Your task to perform on an android device: Open CNN.com Image 0: 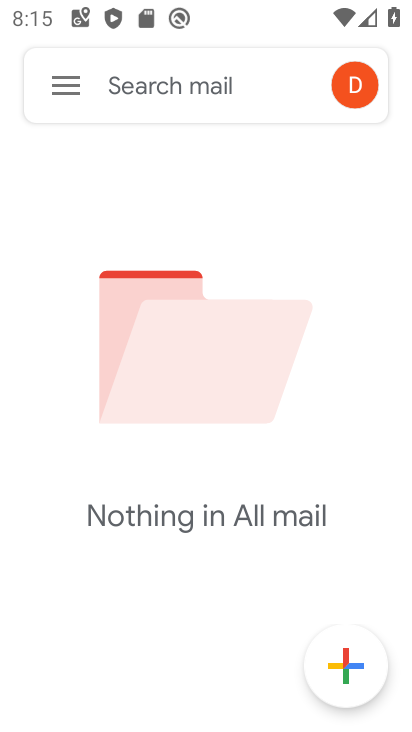
Step 0: press home button
Your task to perform on an android device: Open CNN.com Image 1: 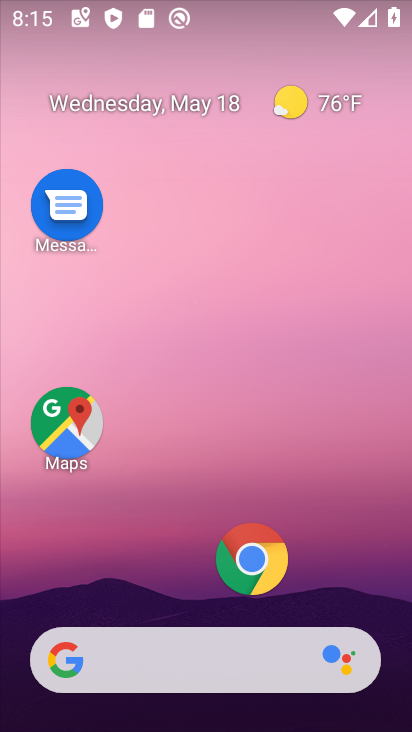
Step 1: click (243, 565)
Your task to perform on an android device: Open CNN.com Image 2: 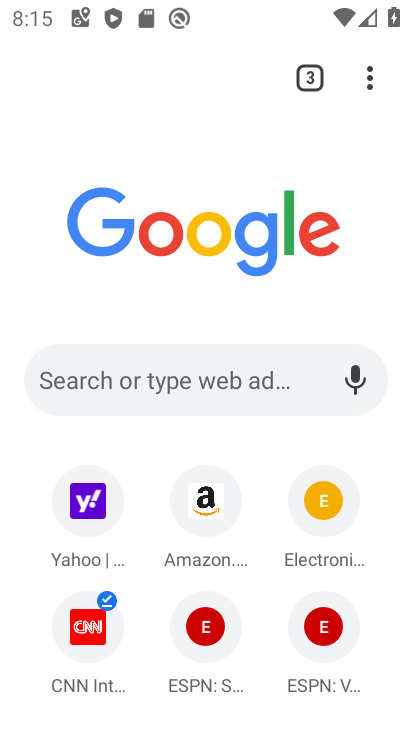
Step 2: click (104, 645)
Your task to perform on an android device: Open CNN.com Image 3: 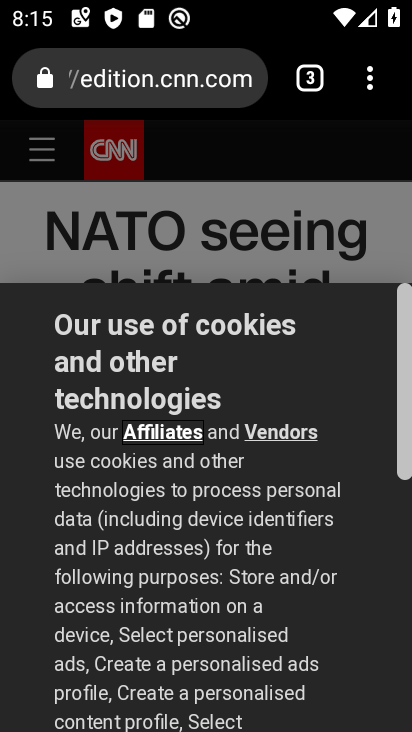
Step 3: drag from (220, 536) to (217, 214)
Your task to perform on an android device: Open CNN.com Image 4: 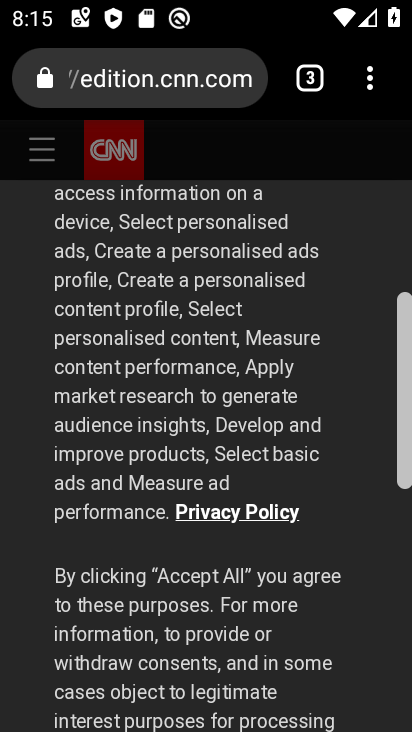
Step 4: drag from (174, 620) to (169, 221)
Your task to perform on an android device: Open CNN.com Image 5: 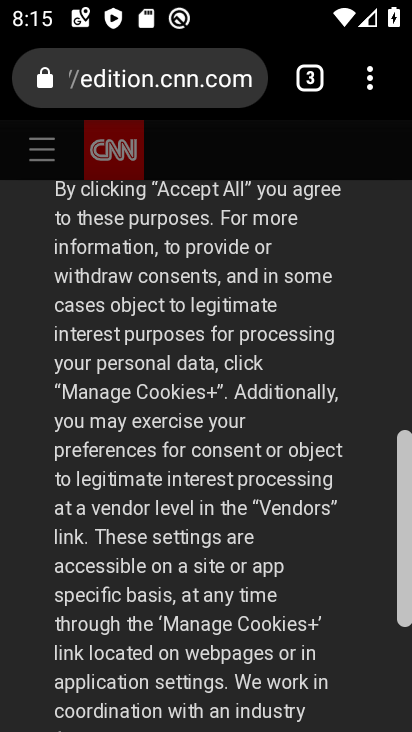
Step 5: drag from (162, 655) to (162, 66)
Your task to perform on an android device: Open CNN.com Image 6: 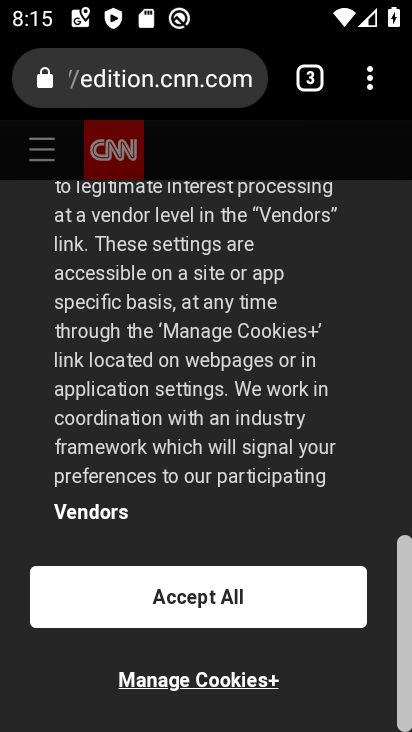
Step 6: click (171, 606)
Your task to perform on an android device: Open CNN.com Image 7: 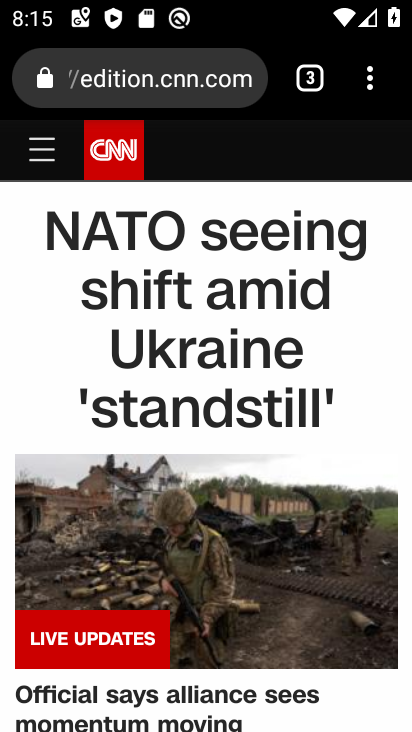
Step 7: task complete